Your task to perform on an android device: Go to Maps Image 0: 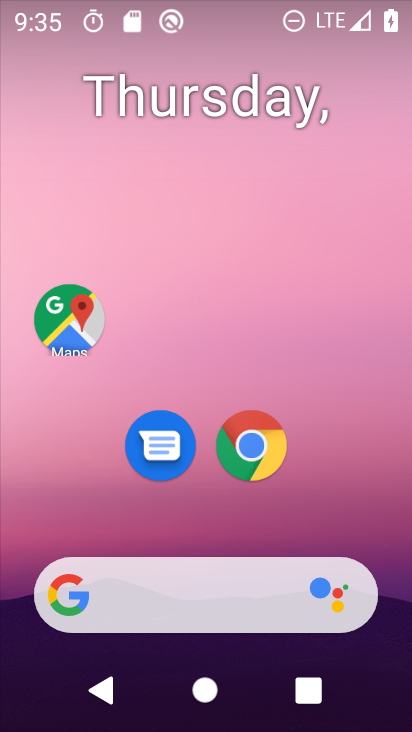
Step 0: drag from (189, 534) to (238, 238)
Your task to perform on an android device: Go to Maps Image 1: 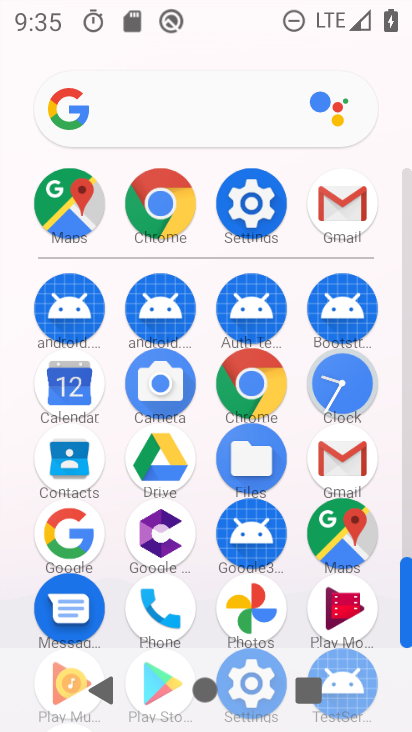
Step 1: click (339, 532)
Your task to perform on an android device: Go to Maps Image 2: 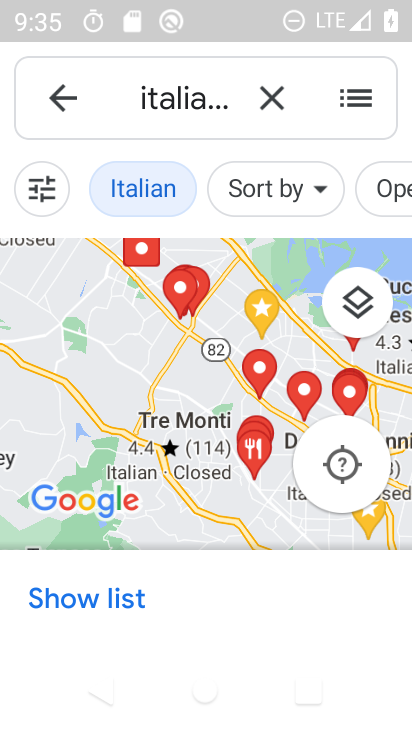
Step 2: task complete